Your task to perform on an android device: Show me recent news Image 0: 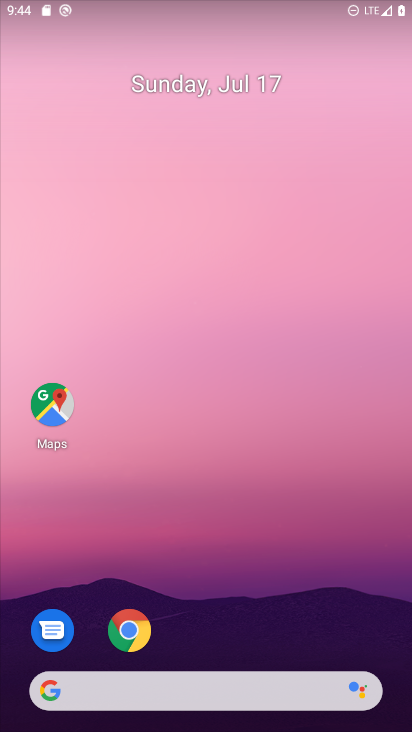
Step 0: drag from (337, 623) to (247, 10)
Your task to perform on an android device: Show me recent news Image 1: 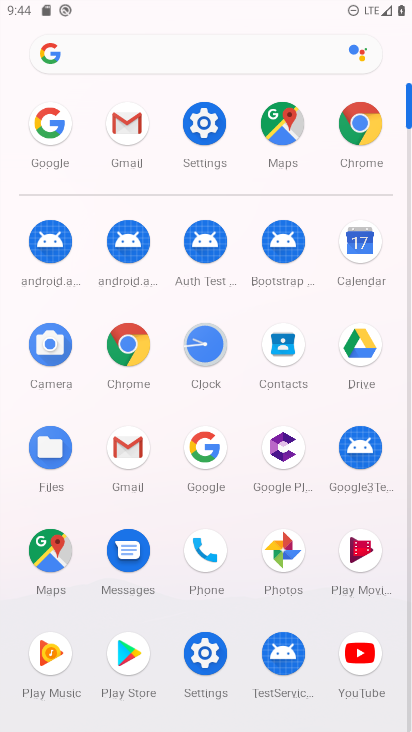
Step 1: click (192, 448)
Your task to perform on an android device: Show me recent news Image 2: 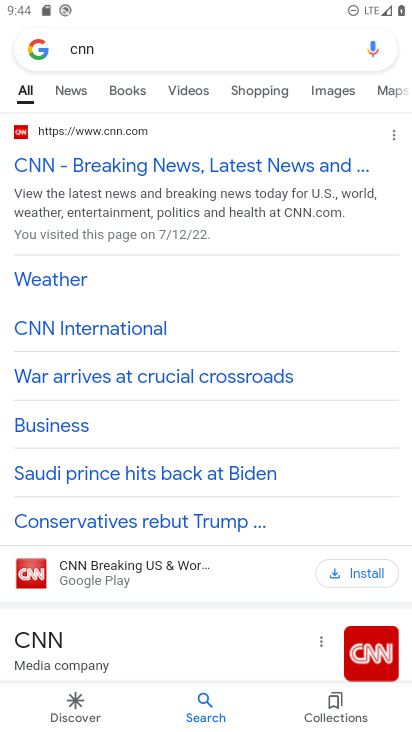
Step 2: press back button
Your task to perform on an android device: Show me recent news Image 3: 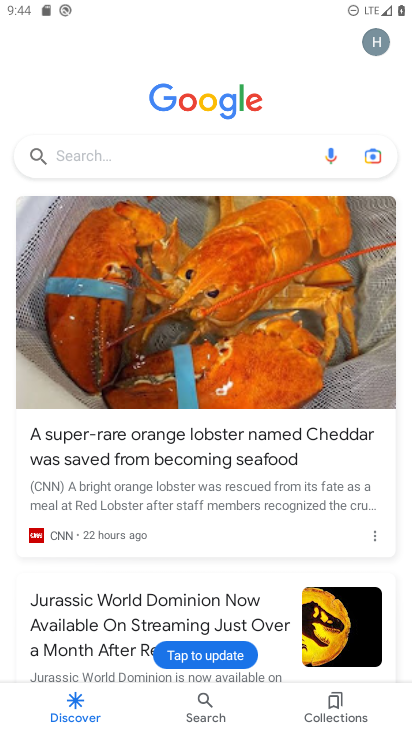
Step 3: click (129, 155)
Your task to perform on an android device: Show me recent news Image 4: 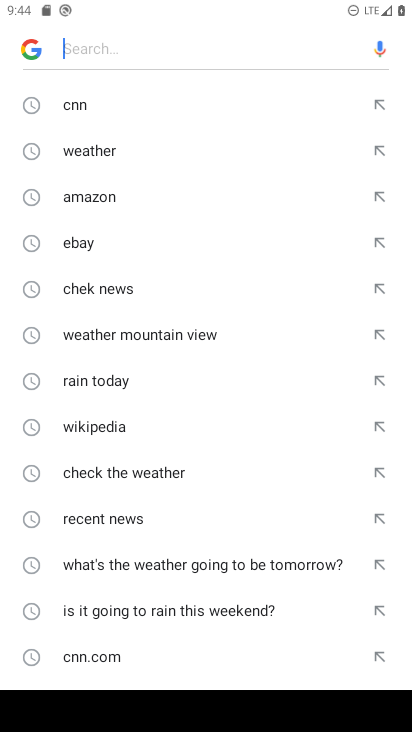
Step 4: click (89, 526)
Your task to perform on an android device: Show me recent news Image 5: 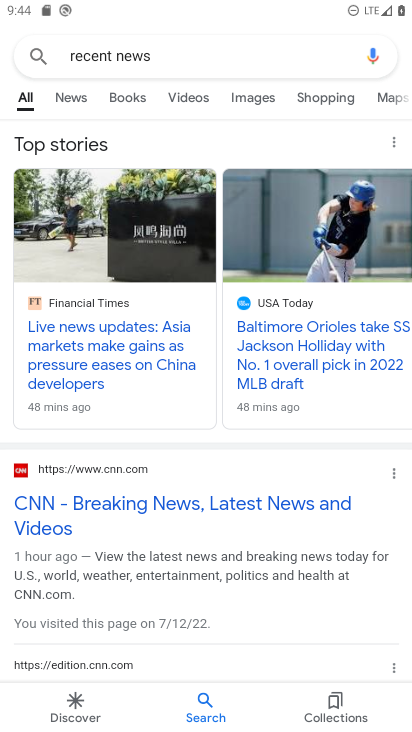
Step 5: task complete